Your task to perform on an android device: Open Google Maps Image 0: 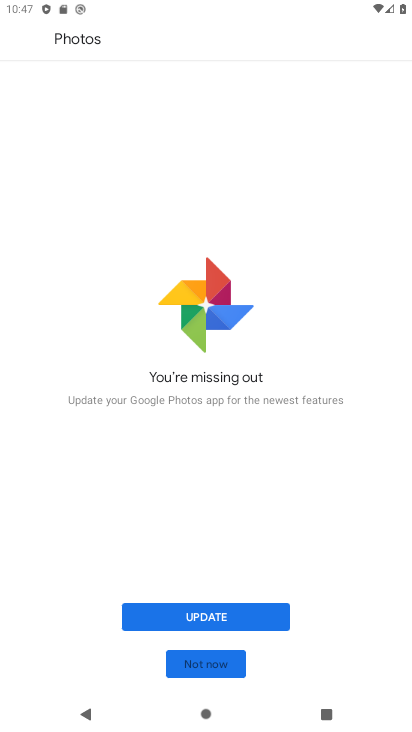
Step 0: press home button
Your task to perform on an android device: Open Google Maps Image 1: 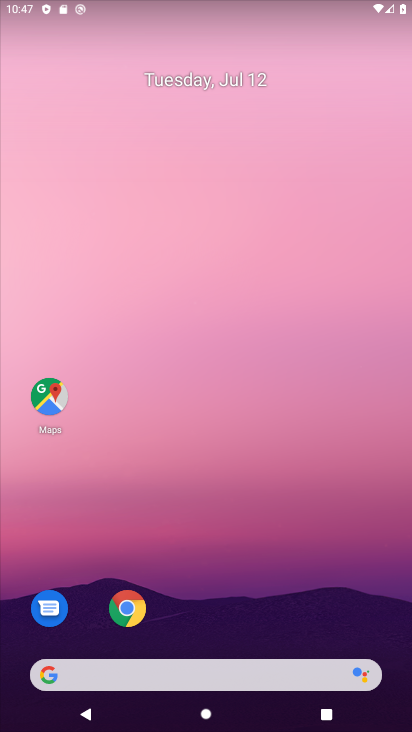
Step 1: click (37, 397)
Your task to perform on an android device: Open Google Maps Image 2: 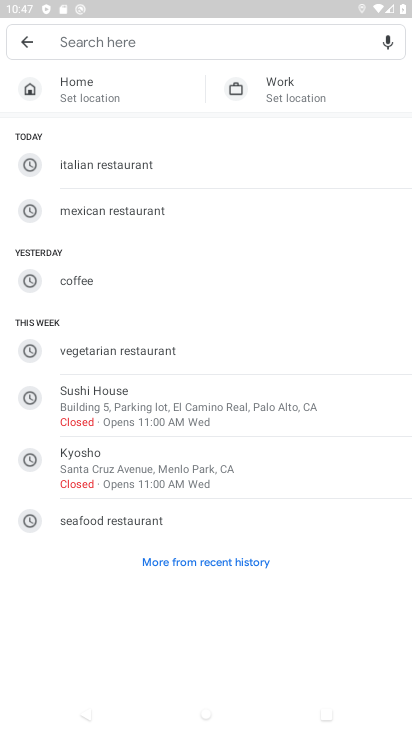
Step 2: click (30, 39)
Your task to perform on an android device: Open Google Maps Image 3: 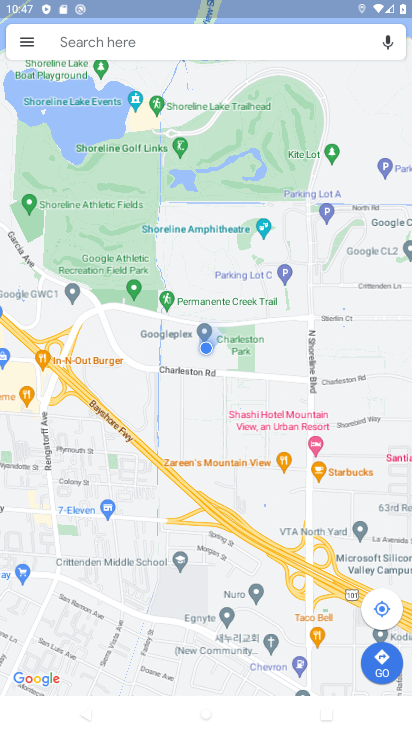
Step 3: task complete